Your task to perform on an android device: Go to Android settings Image 0: 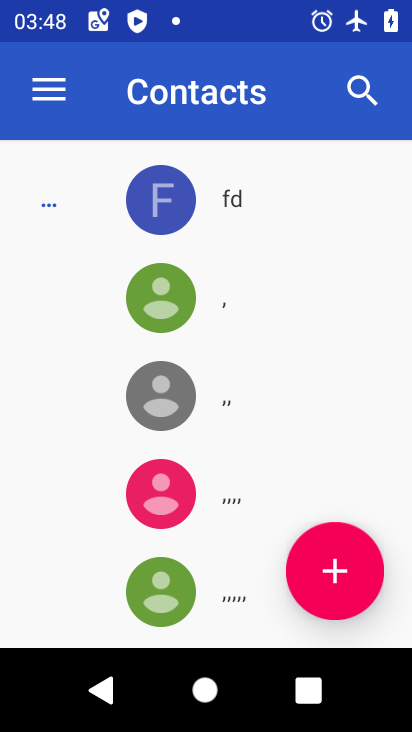
Step 0: press home button
Your task to perform on an android device: Go to Android settings Image 1: 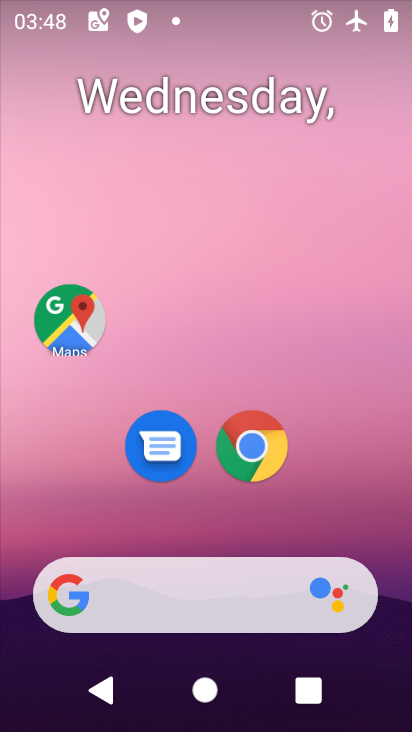
Step 1: drag from (196, 525) to (256, 130)
Your task to perform on an android device: Go to Android settings Image 2: 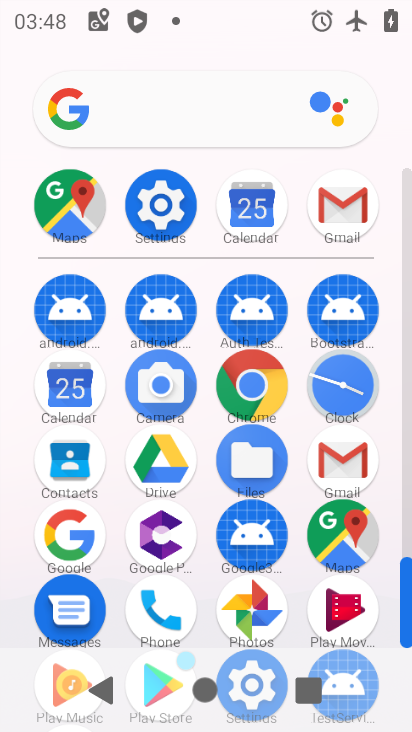
Step 2: click (165, 209)
Your task to perform on an android device: Go to Android settings Image 3: 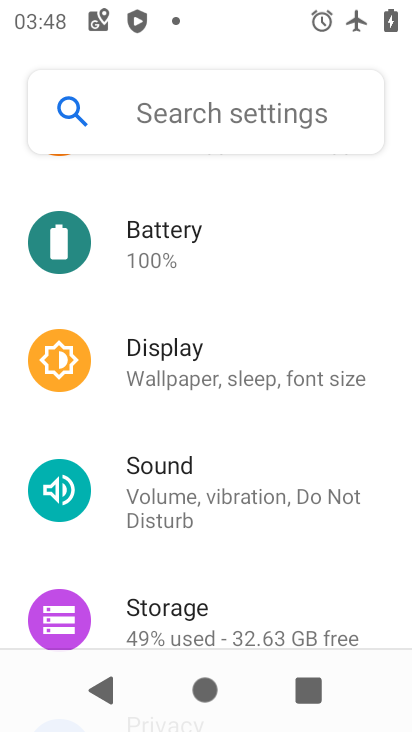
Step 3: task complete